Your task to perform on an android device: open chrome and create a bookmark for the current page Image 0: 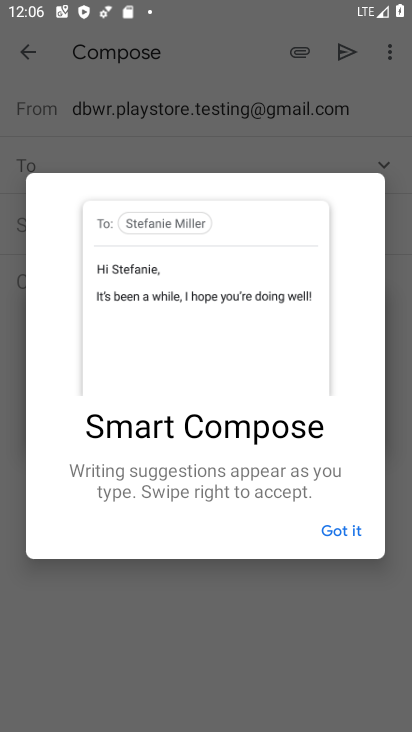
Step 0: press home button
Your task to perform on an android device: open chrome and create a bookmark for the current page Image 1: 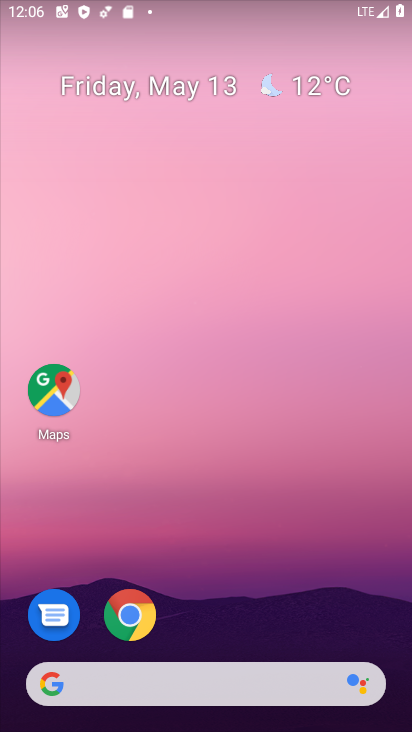
Step 1: click (129, 606)
Your task to perform on an android device: open chrome and create a bookmark for the current page Image 2: 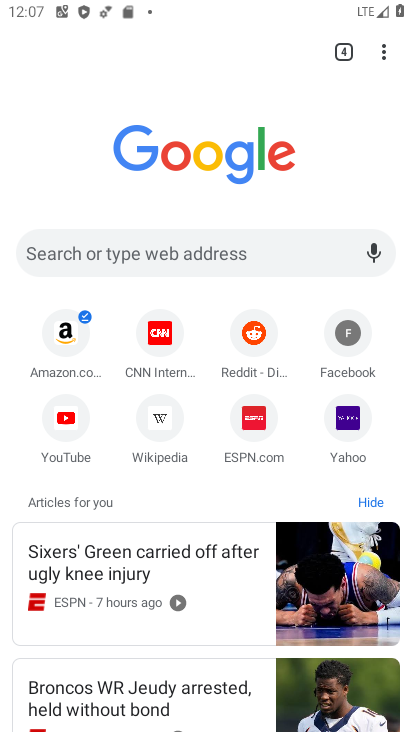
Step 2: click (197, 250)
Your task to perform on an android device: open chrome and create a bookmark for the current page Image 3: 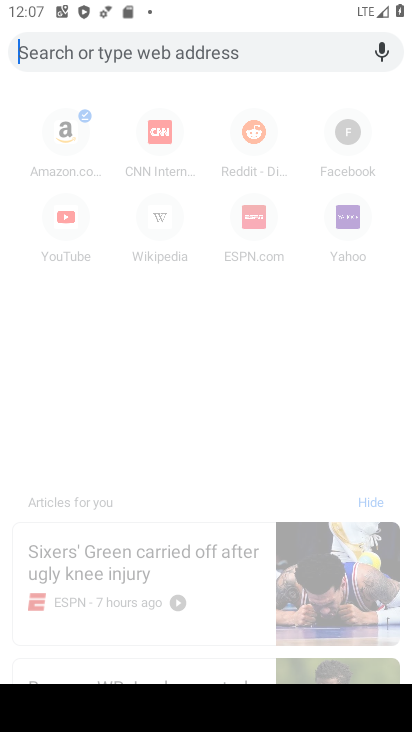
Step 3: type "fghjfgv"
Your task to perform on an android device: open chrome and create a bookmark for the current page Image 4: 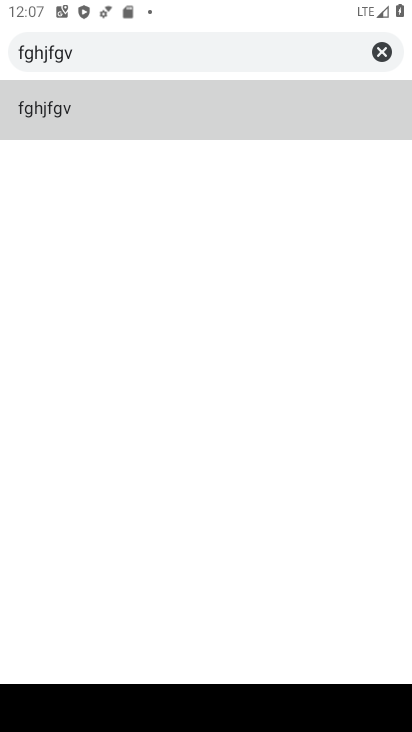
Step 4: click (215, 127)
Your task to perform on an android device: open chrome and create a bookmark for the current page Image 5: 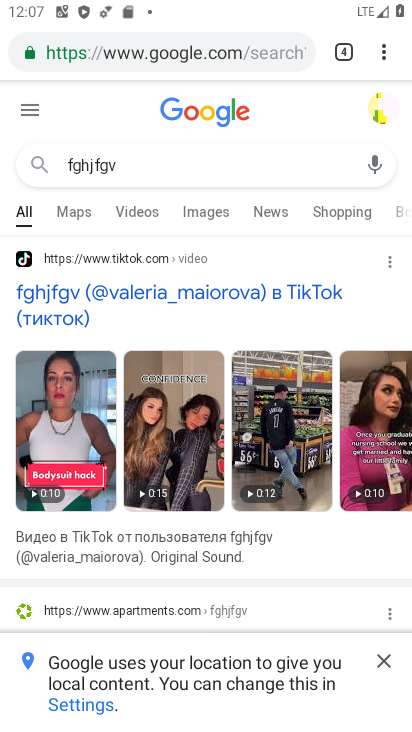
Step 5: click (385, 49)
Your task to perform on an android device: open chrome and create a bookmark for the current page Image 6: 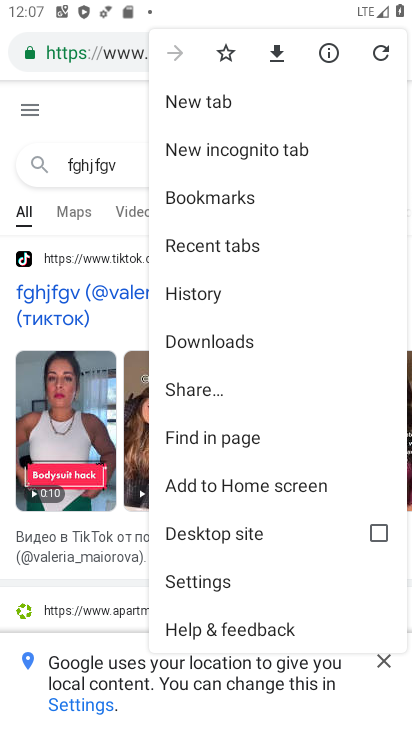
Step 6: click (225, 58)
Your task to perform on an android device: open chrome and create a bookmark for the current page Image 7: 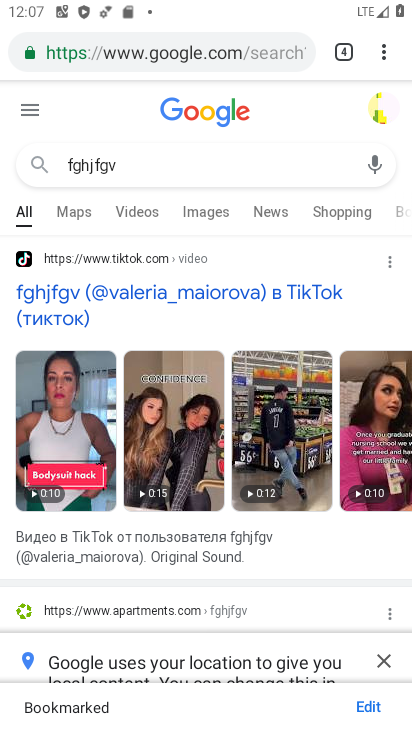
Step 7: task complete